Your task to perform on an android device: find photos in the google photos app Image 0: 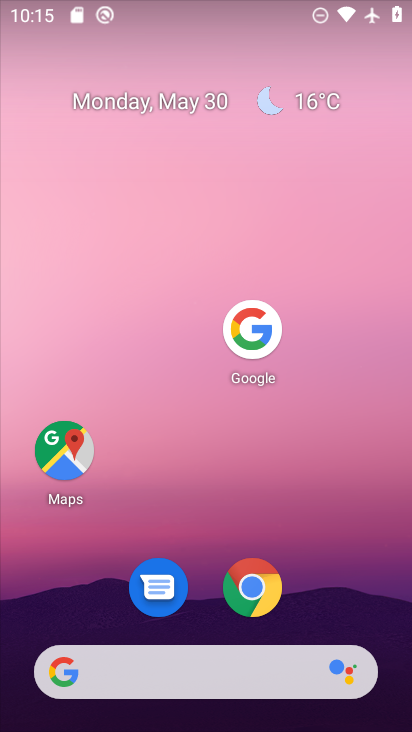
Step 0: drag from (248, 660) to (406, 111)
Your task to perform on an android device: find photos in the google photos app Image 1: 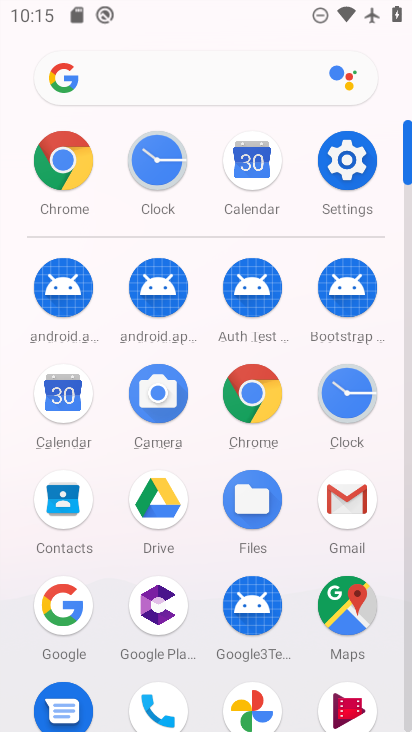
Step 1: drag from (200, 610) to (350, 345)
Your task to perform on an android device: find photos in the google photos app Image 2: 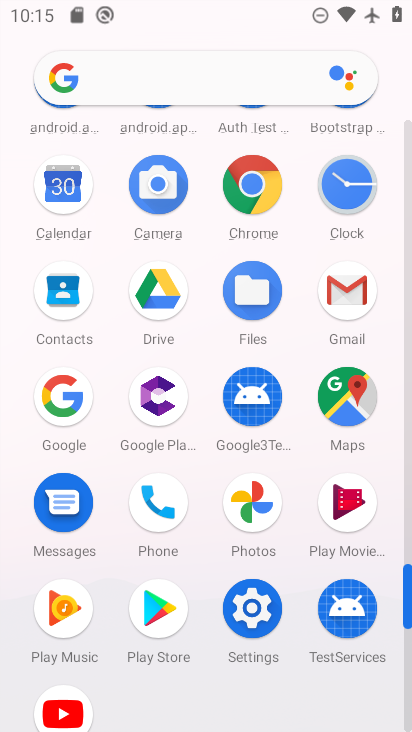
Step 2: click (255, 508)
Your task to perform on an android device: find photos in the google photos app Image 3: 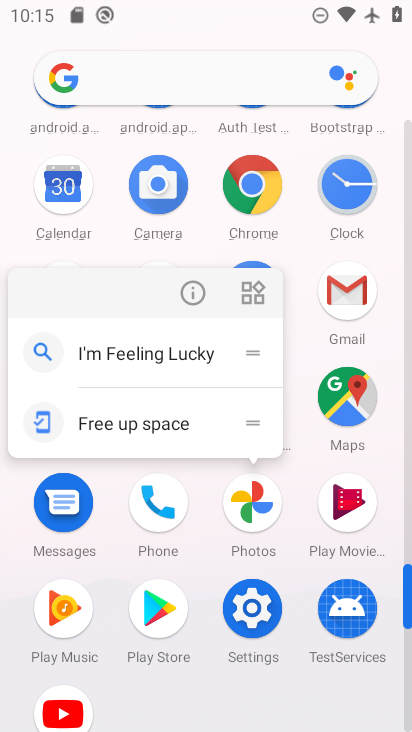
Step 3: click (255, 499)
Your task to perform on an android device: find photos in the google photos app Image 4: 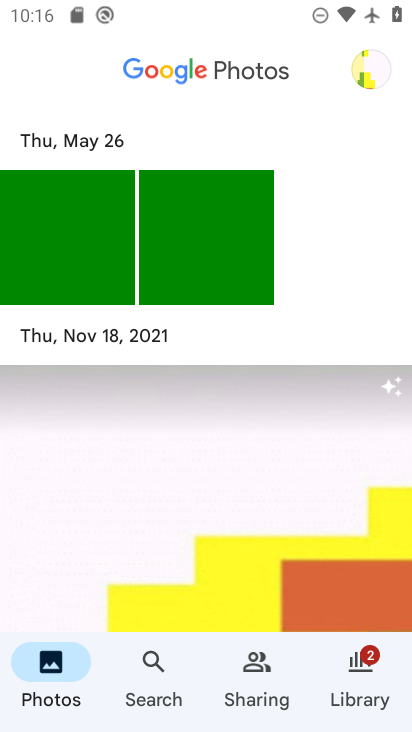
Step 4: task complete